Your task to perform on an android device: Go to battery settings Image 0: 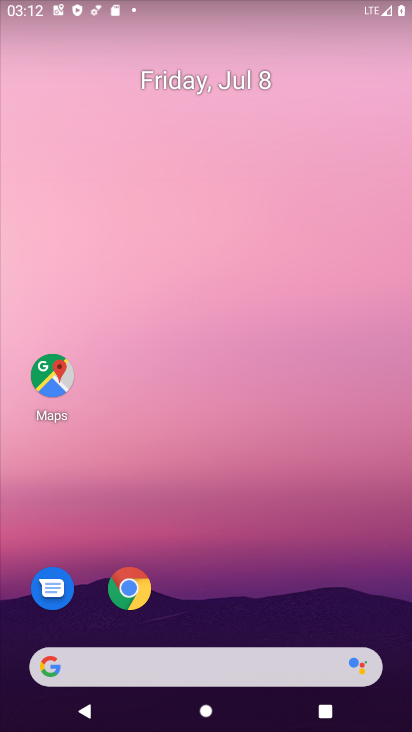
Step 0: press home button
Your task to perform on an android device: Go to battery settings Image 1: 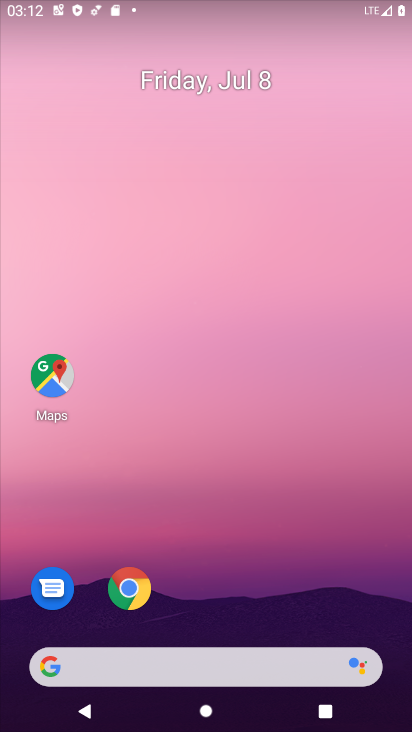
Step 1: drag from (187, 667) to (270, 57)
Your task to perform on an android device: Go to battery settings Image 2: 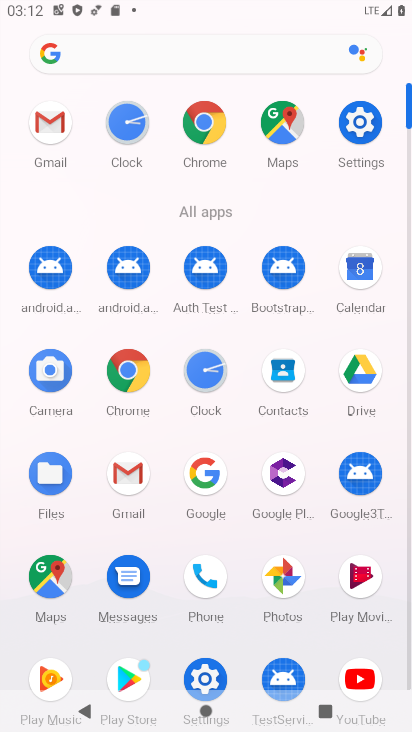
Step 2: click (351, 125)
Your task to perform on an android device: Go to battery settings Image 3: 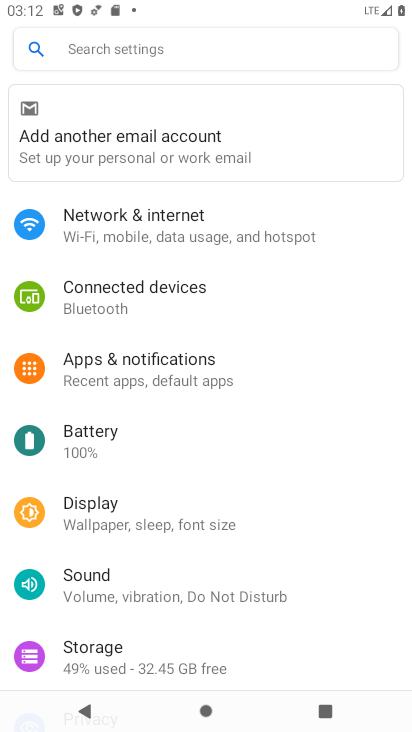
Step 3: click (119, 447)
Your task to perform on an android device: Go to battery settings Image 4: 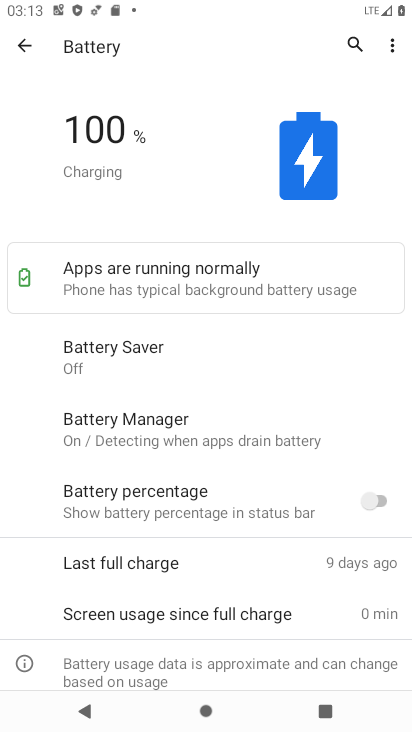
Step 4: task complete